Your task to perform on an android device: Go to location settings Image 0: 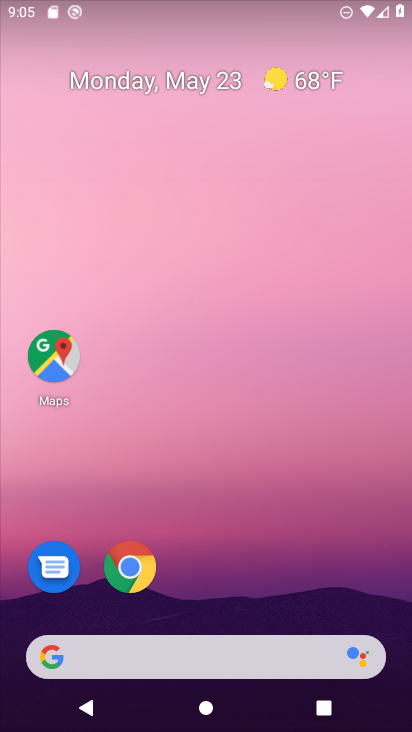
Step 0: drag from (205, 639) to (279, 123)
Your task to perform on an android device: Go to location settings Image 1: 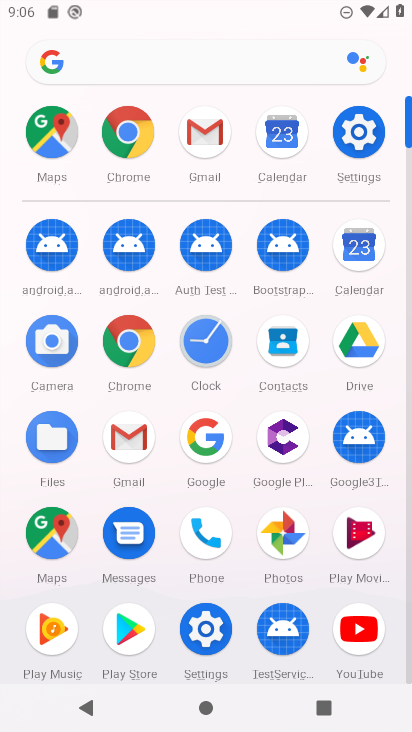
Step 1: click (367, 121)
Your task to perform on an android device: Go to location settings Image 2: 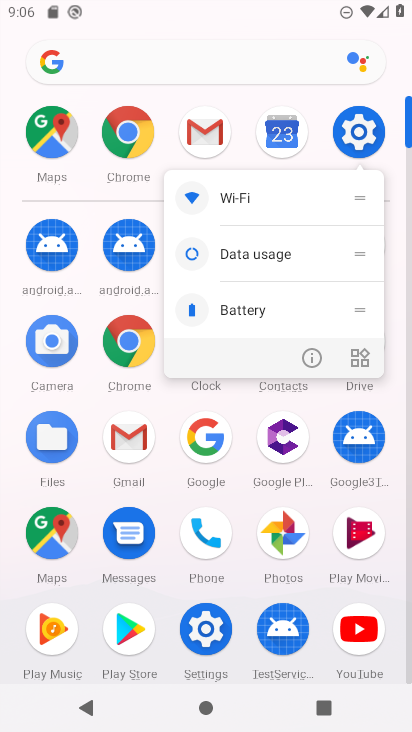
Step 2: click (308, 354)
Your task to perform on an android device: Go to location settings Image 3: 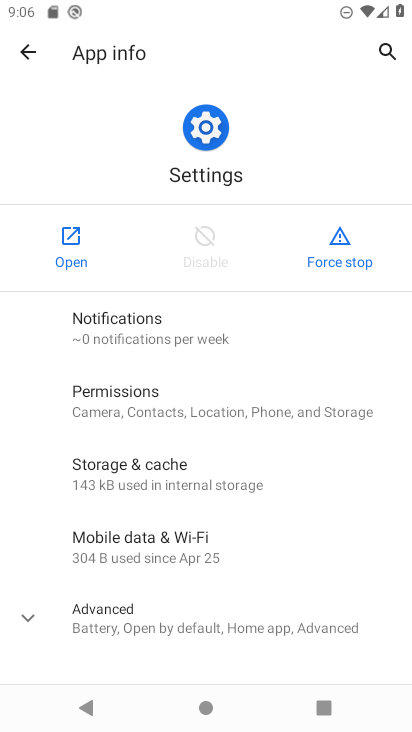
Step 3: click (77, 242)
Your task to perform on an android device: Go to location settings Image 4: 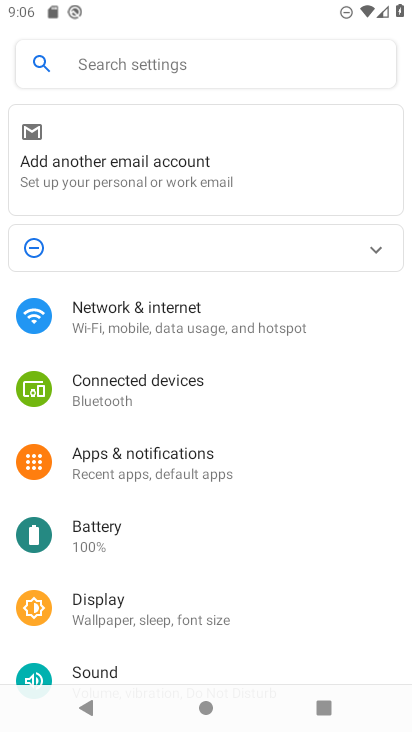
Step 4: drag from (173, 594) to (234, 47)
Your task to perform on an android device: Go to location settings Image 5: 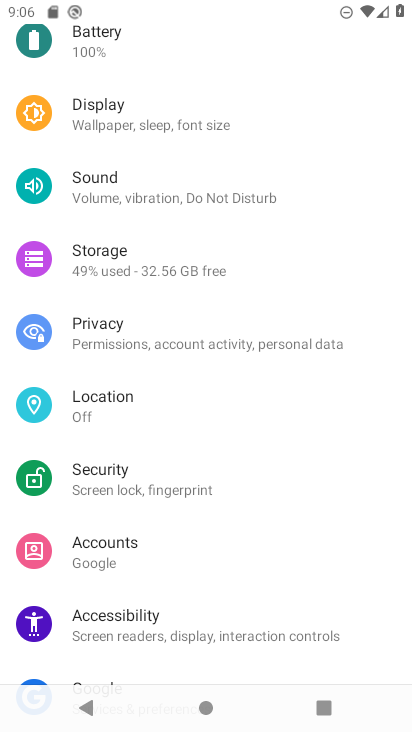
Step 5: drag from (221, 508) to (289, 88)
Your task to perform on an android device: Go to location settings Image 6: 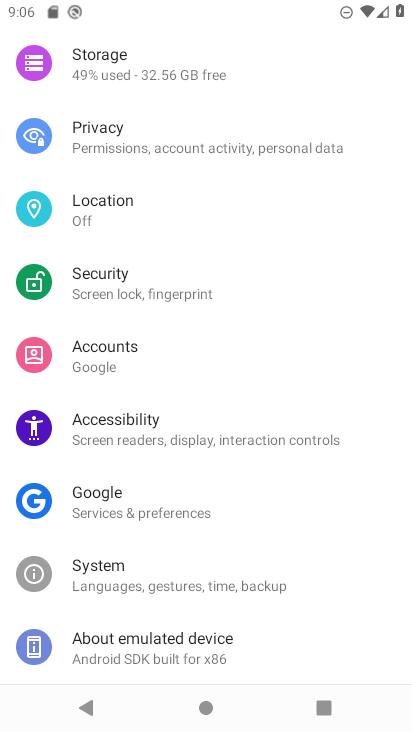
Step 6: drag from (178, 518) to (289, 138)
Your task to perform on an android device: Go to location settings Image 7: 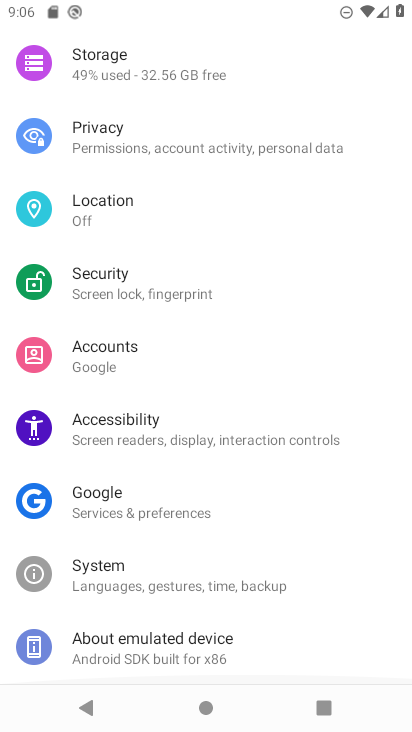
Step 7: drag from (254, 143) to (330, 171)
Your task to perform on an android device: Go to location settings Image 8: 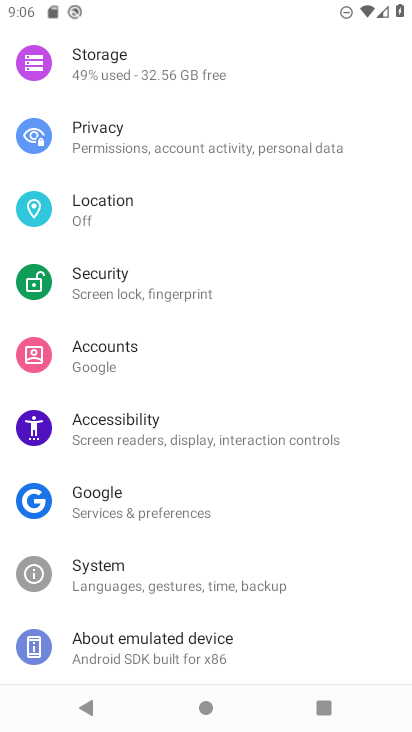
Step 8: click (106, 208)
Your task to perform on an android device: Go to location settings Image 9: 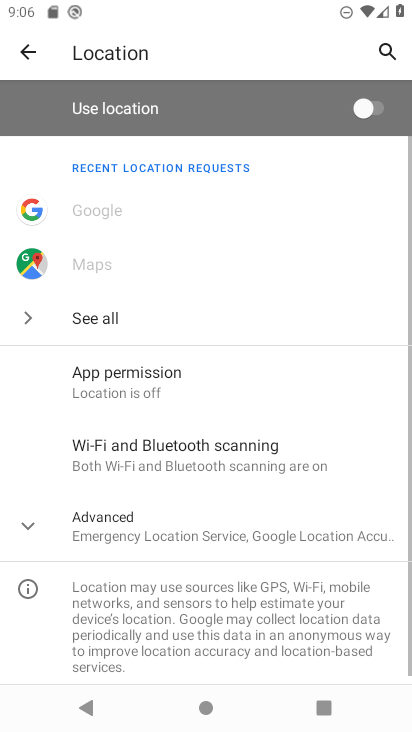
Step 9: task complete